Your task to perform on an android device: Open accessibility settings Image 0: 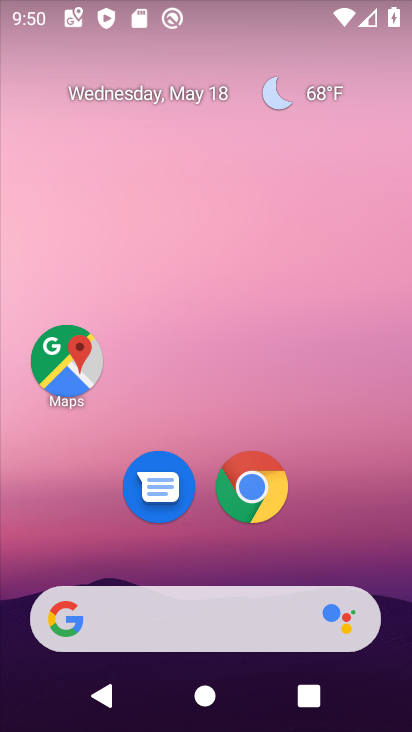
Step 0: press home button
Your task to perform on an android device: Open accessibility settings Image 1: 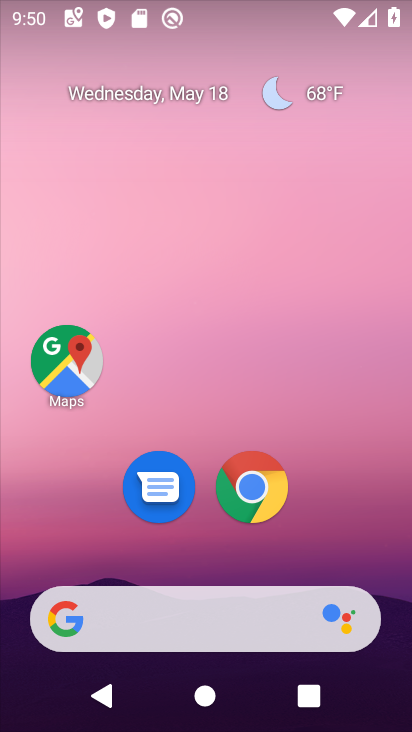
Step 1: drag from (390, 507) to (384, 149)
Your task to perform on an android device: Open accessibility settings Image 2: 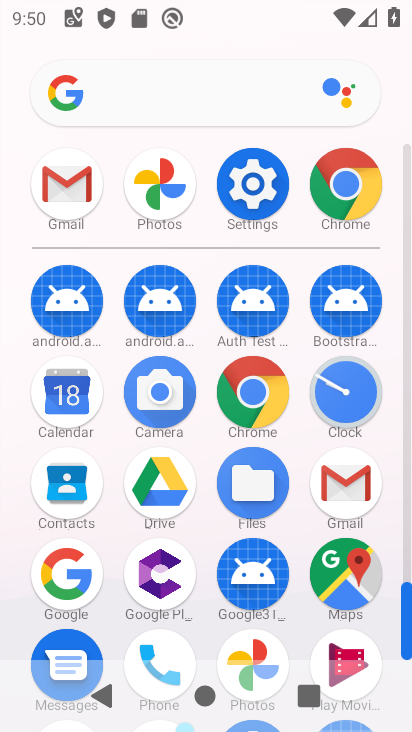
Step 2: click (254, 186)
Your task to perform on an android device: Open accessibility settings Image 3: 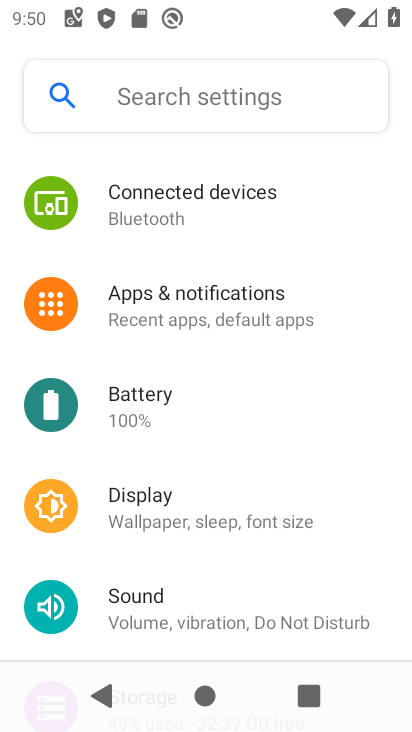
Step 3: drag from (245, 569) to (244, 195)
Your task to perform on an android device: Open accessibility settings Image 4: 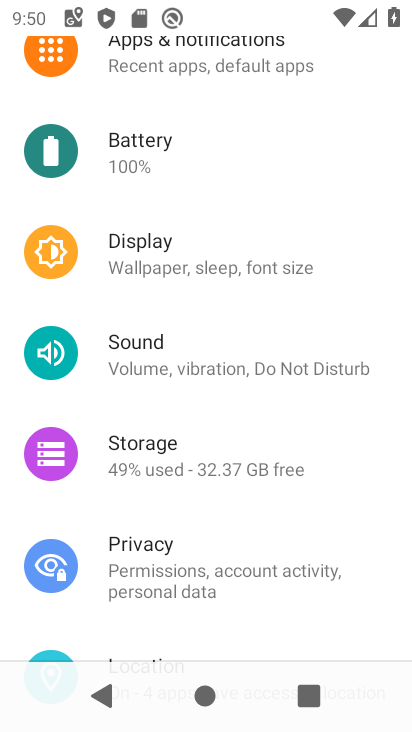
Step 4: drag from (243, 588) to (260, 245)
Your task to perform on an android device: Open accessibility settings Image 5: 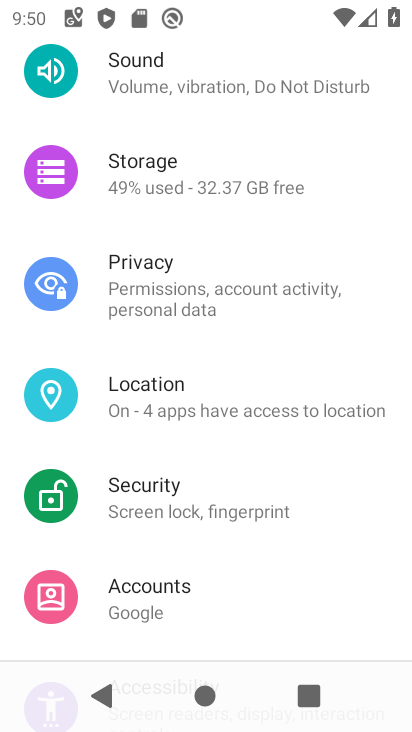
Step 5: drag from (280, 538) to (290, 220)
Your task to perform on an android device: Open accessibility settings Image 6: 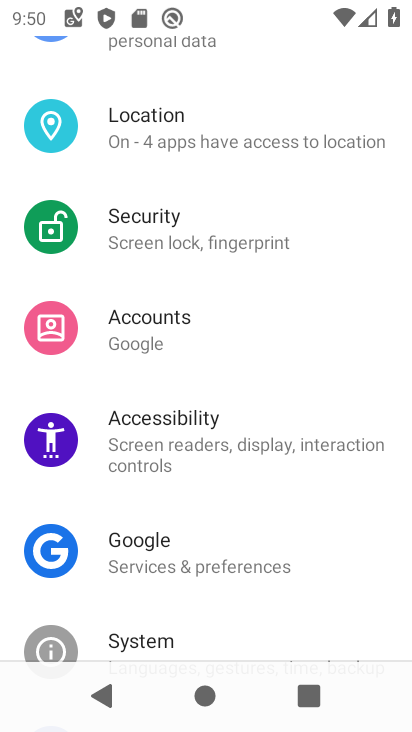
Step 6: click (243, 446)
Your task to perform on an android device: Open accessibility settings Image 7: 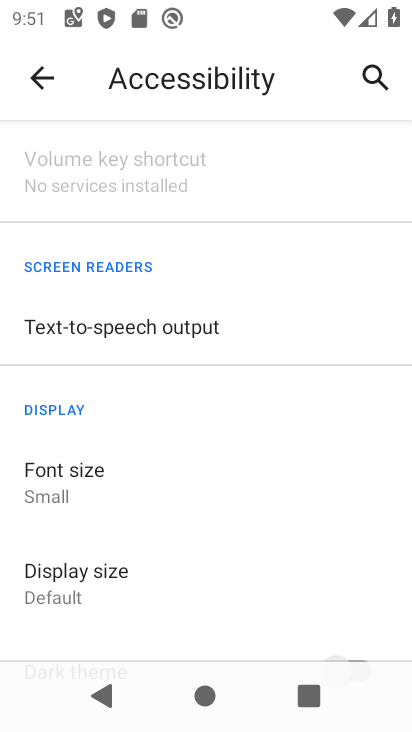
Step 7: task complete